Your task to perform on an android device: Go to location settings Image 0: 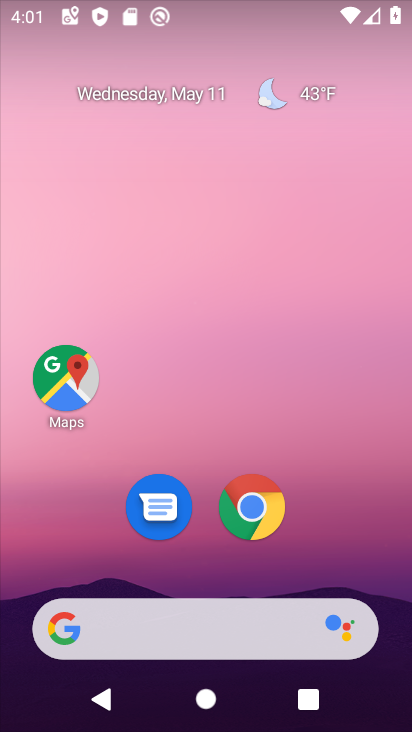
Step 0: drag from (309, 536) to (339, 173)
Your task to perform on an android device: Go to location settings Image 1: 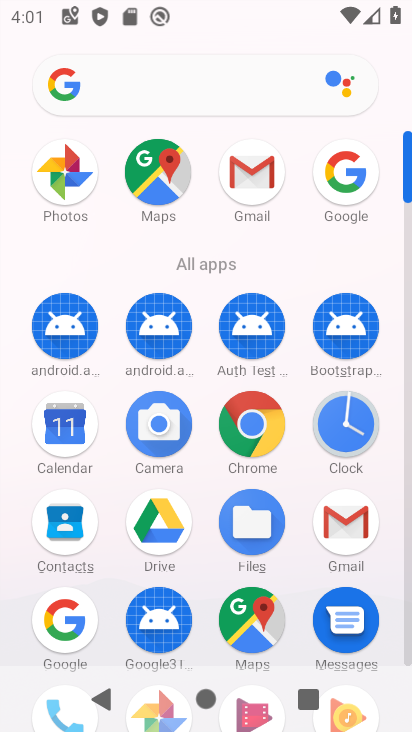
Step 1: drag from (260, 464) to (271, 296)
Your task to perform on an android device: Go to location settings Image 2: 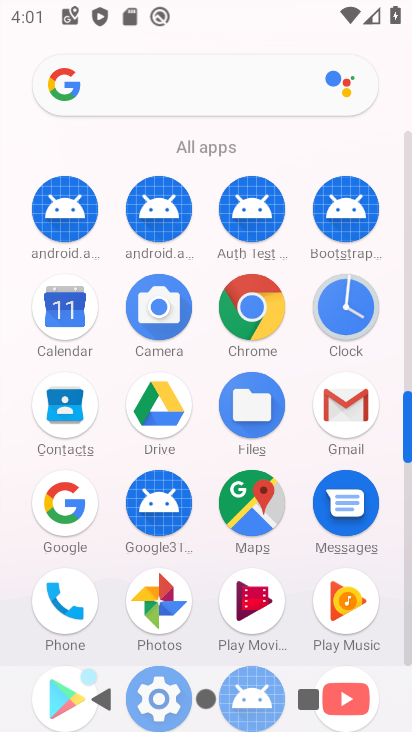
Step 2: drag from (296, 573) to (302, 347)
Your task to perform on an android device: Go to location settings Image 3: 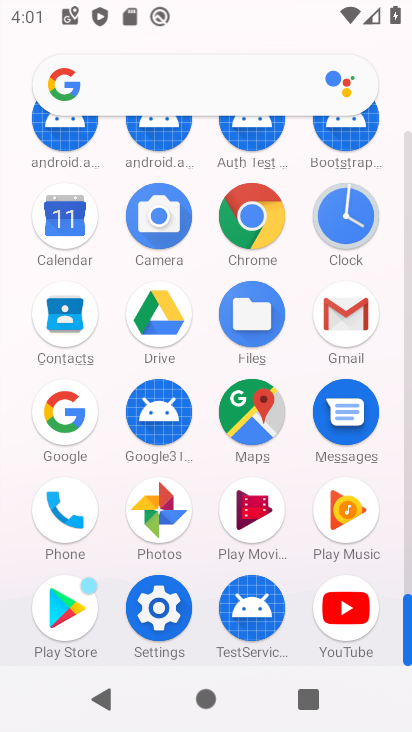
Step 3: click (162, 610)
Your task to perform on an android device: Go to location settings Image 4: 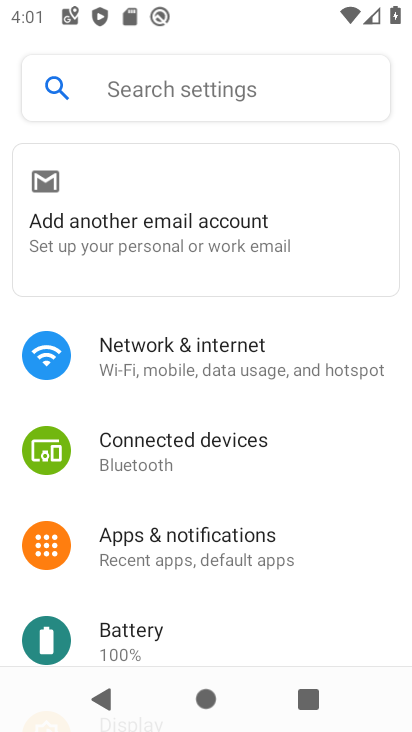
Step 4: drag from (250, 585) to (256, 200)
Your task to perform on an android device: Go to location settings Image 5: 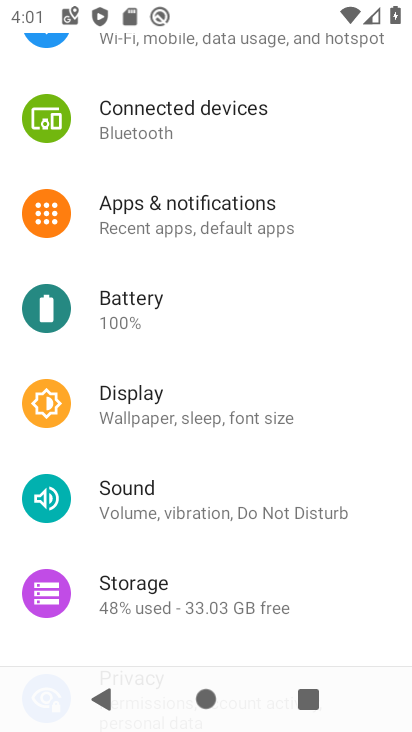
Step 5: drag from (223, 544) to (226, 288)
Your task to perform on an android device: Go to location settings Image 6: 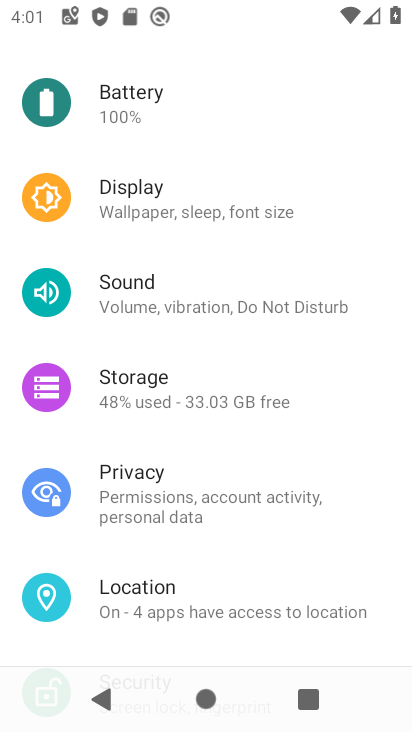
Step 6: click (197, 600)
Your task to perform on an android device: Go to location settings Image 7: 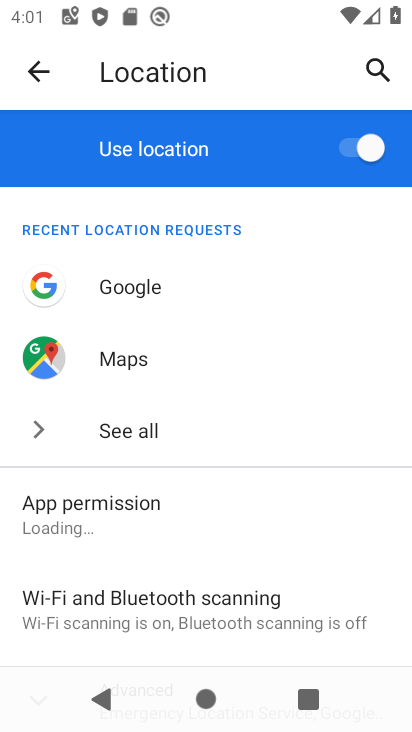
Step 7: task complete